Your task to perform on an android device: Search for beats solo 3 on amazon.com, select the first entry, and add it to the cart. Image 0: 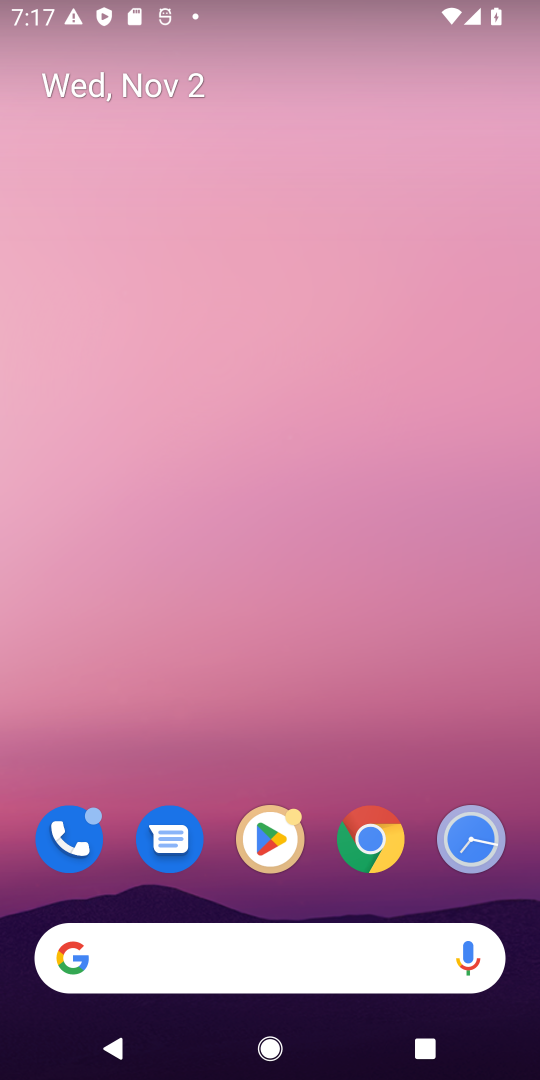
Step 0: click (371, 840)
Your task to perform on an android device: Search for beats solo 3 on amazon.com, select the first entry, and add it to the cart. Image 1: 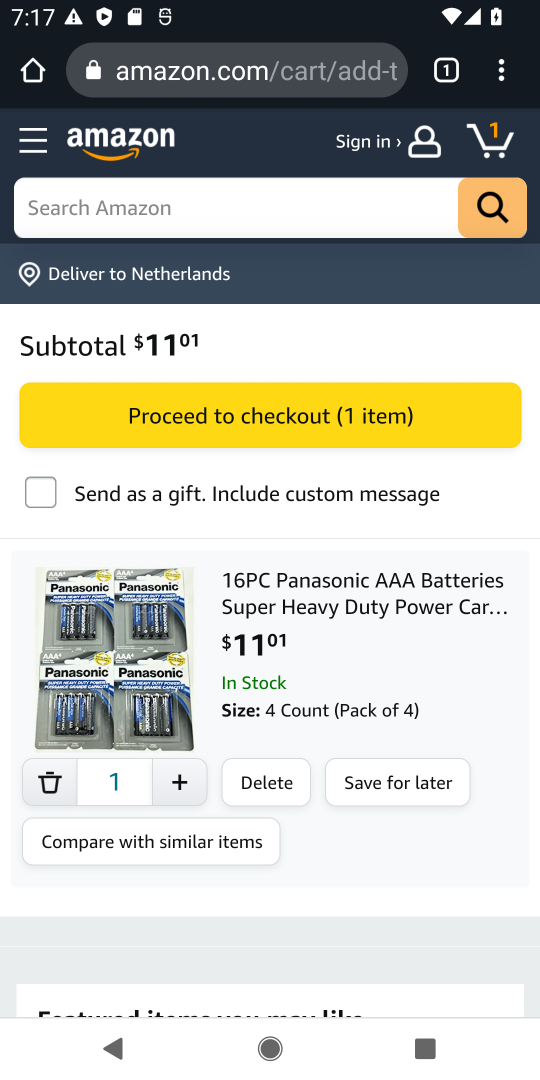
Step 1: click (274, 73)
Your task to perform on an android device: Search for beats solo 3 on amazon.com, select the first entry, and add it to the cart. Image 2: 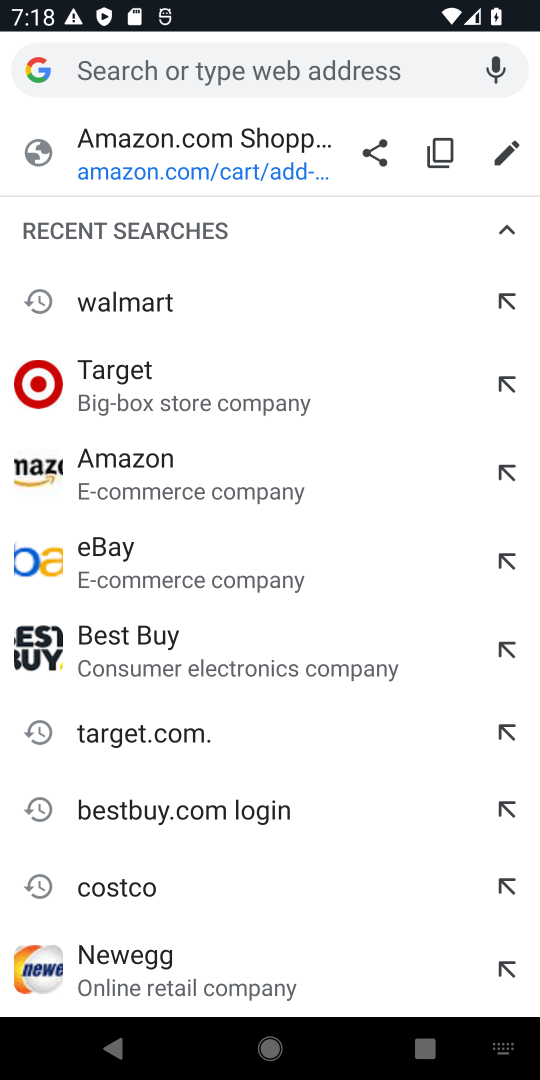
Step 2: type "amazon.com"
Your task to perform on an android device: Search for beats solo 3 on amazon.com, select the first entry, and add it to the cart. Image 3: 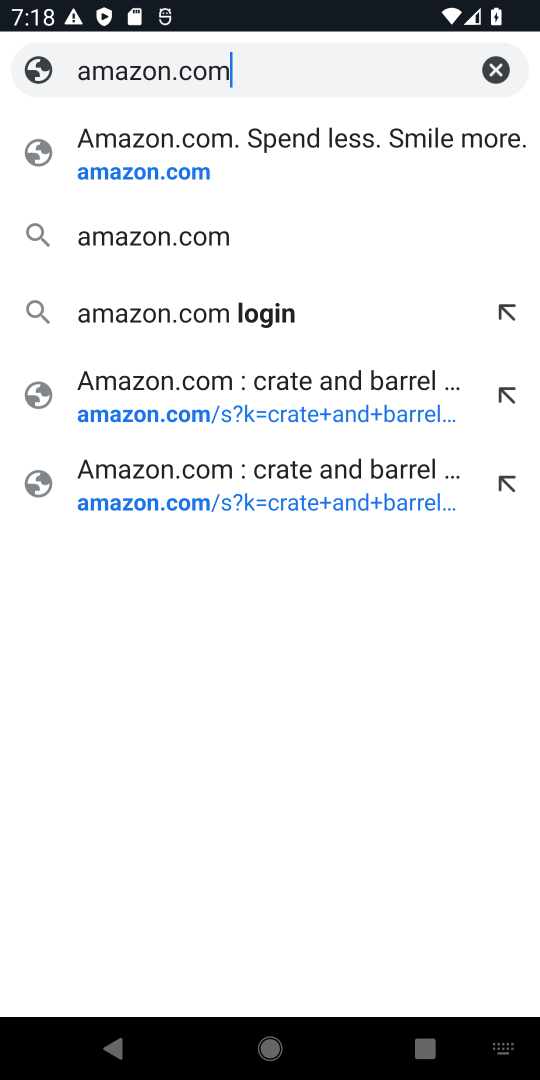
Step 3: click (190, 241)
Your task to perform on an android device: Search for beats solo 3 on amazon.com, select the first entry, and add it to the cart. Image 4: 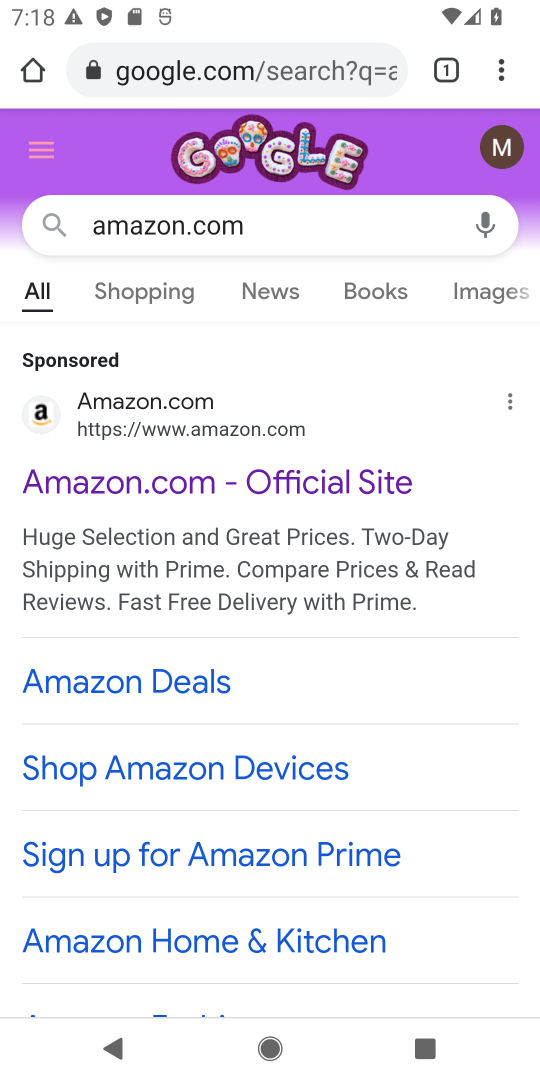
Step 4: drag from (320, 702) to (340, 208)
Your task to perform on an android device: Search for beats solo 3 on amazon.com, select the first entry, and add it to the cart. Image 5: 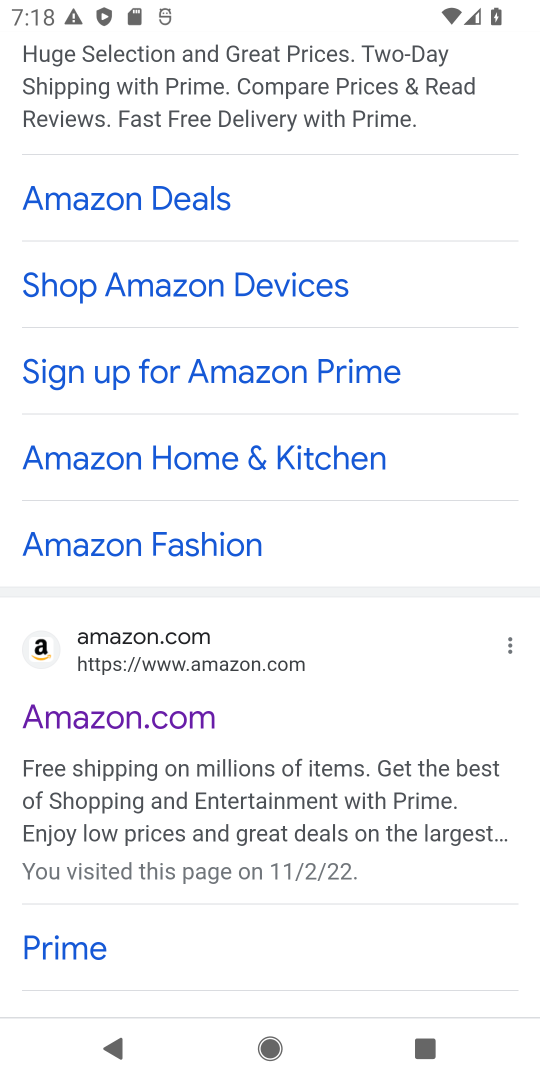
Step 5: click (199, 726)
Your task to perform on an android device: Search for beats solo 3 on amazon.com, select the first entry, and add it to the cart. Image 6: 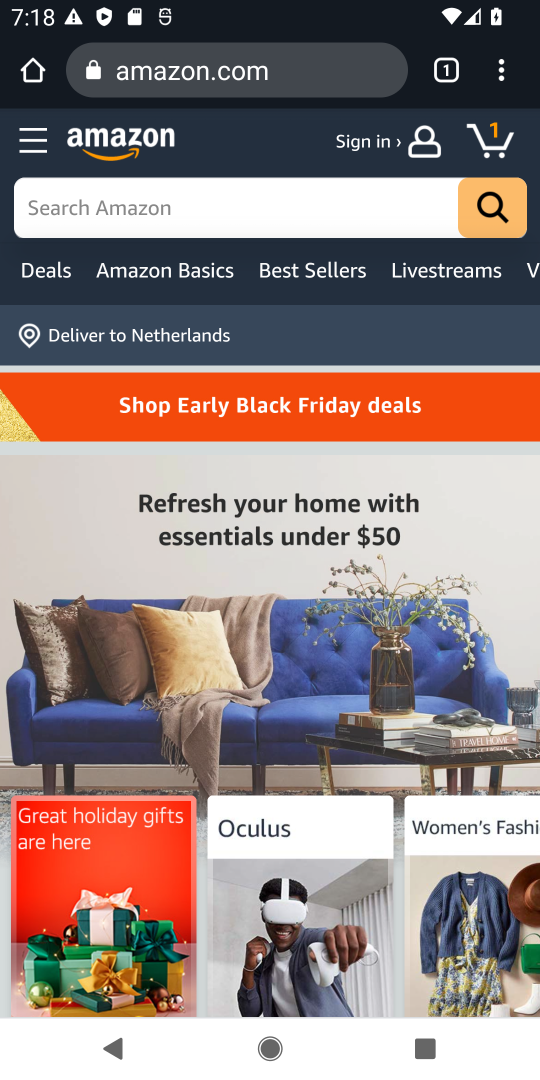
Step 6: click (287, 225)
Your task to perform on an android device: Search for beats solo 3 on amazon.com, select the first entry, and add it to the cart. Image 7: 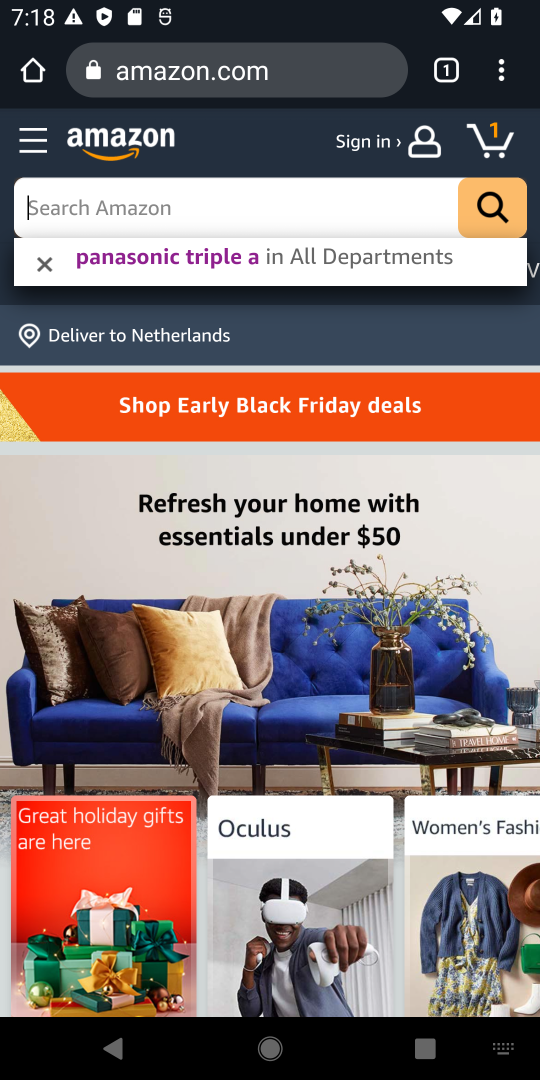
Step 7: type "beats solo 3"
Your task to perform on an android device: Search for beats solo 3 on amazon.com, select the first entry, and add it to the cart. Image 8: 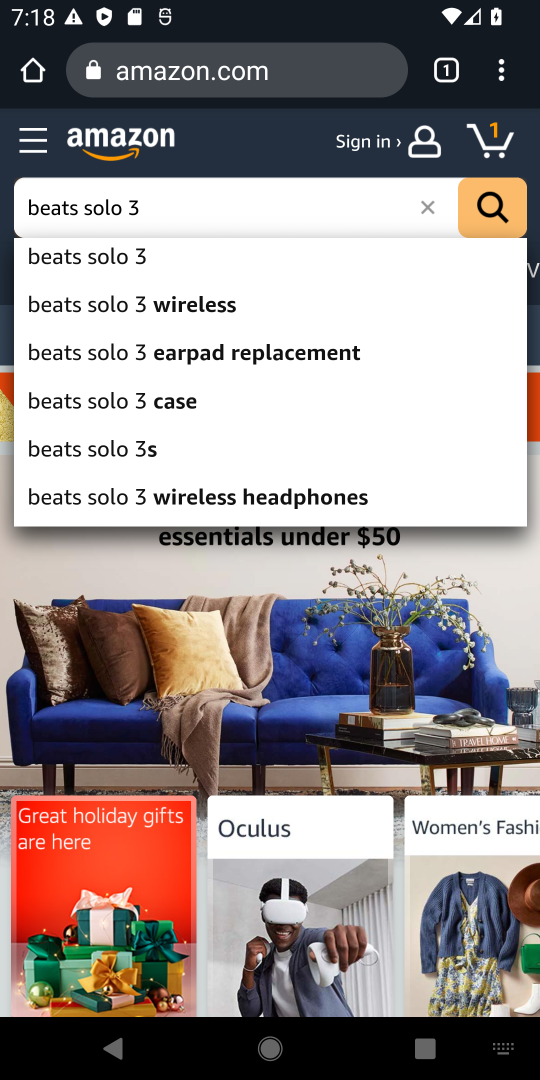
Step 8: click (148, 265)
Your task to perform on an android device: Search for beats solo 3 on amazon.com, select the first entry, and add it to the cart. Image 9: 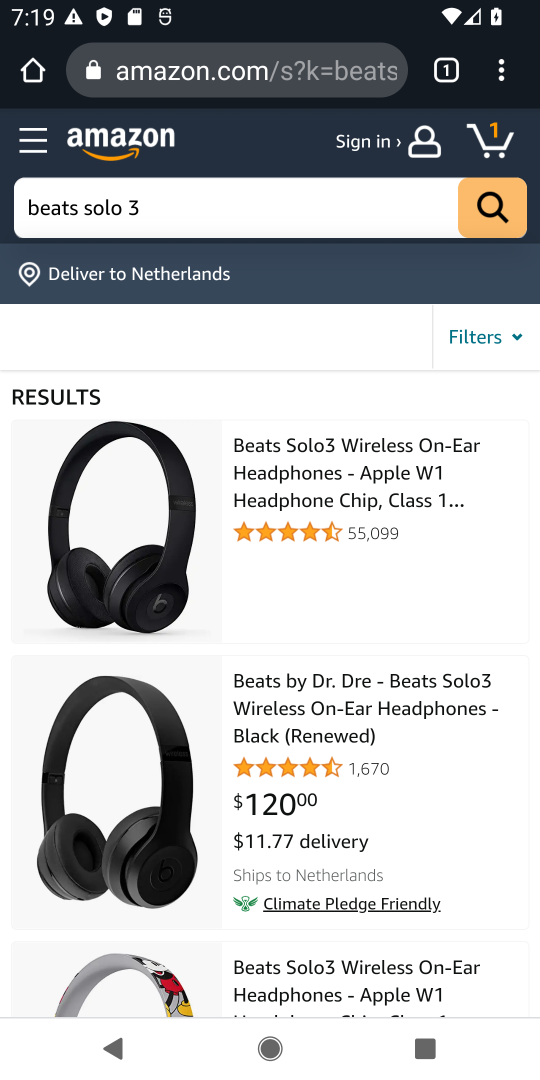
Step 9: click (385, 468)
Your task to perform on an android device: Search for beats solo 3 on amazon.com, select the first entry, and add it to the cart. Image 10: 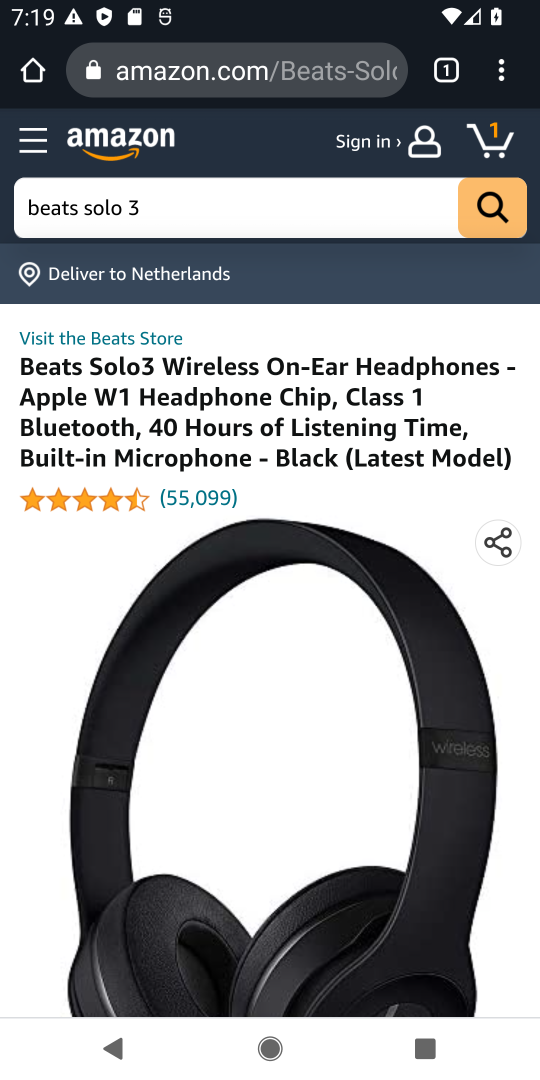
Step 10: task complete